Your task to perform on an android device: Open Google Maps Image 0: 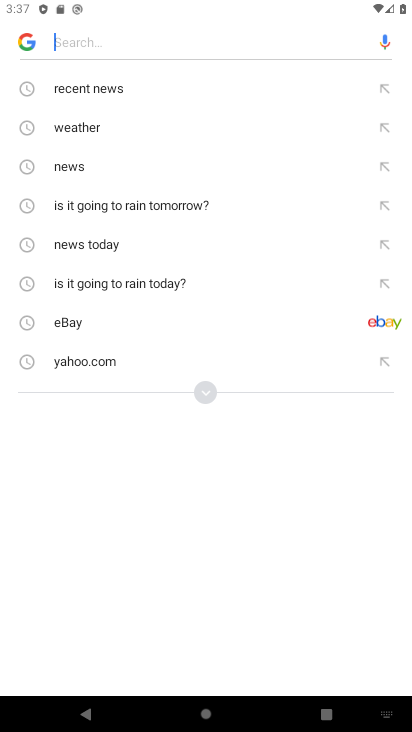
Step 0: press home button
Your task to perform on an android device: Open Google Maps Image 1: 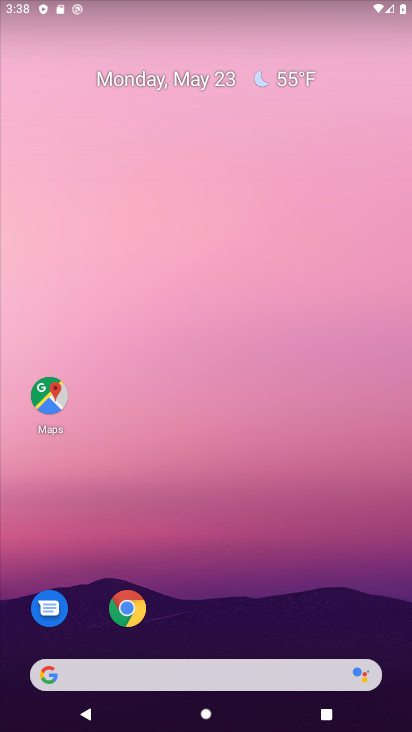
Step 1: click (48, 379)
Your task to perform on an android device: Open Google Maps Image 2: 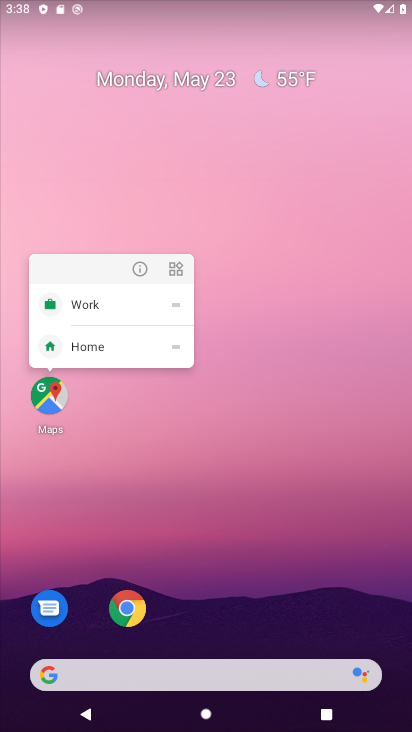
Step 2: click (39, 398)
Your task to perform on an android device: Open Google Maps Image 3: 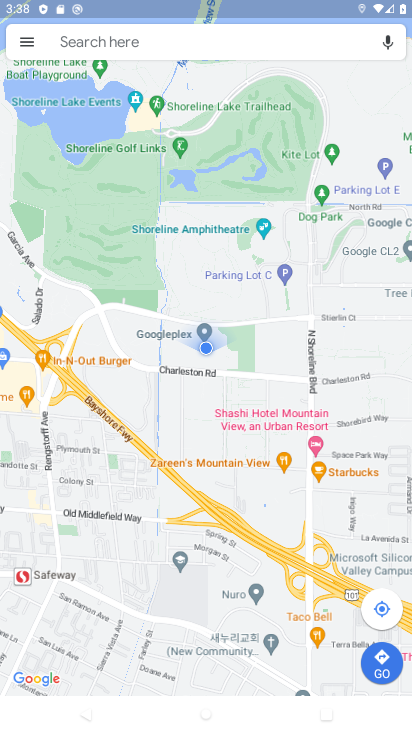
Step 3: task complete